Your task to perform on an android device: Show me recent news Image 0: 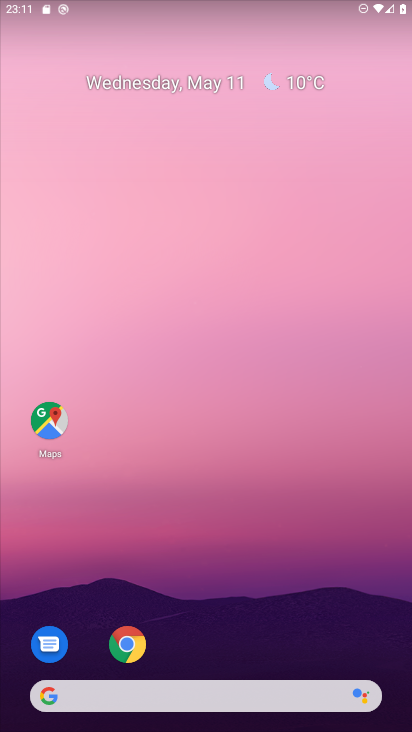
Step 0: click (147, 694)
Your task to perform on an android device: Show me recent news Image 1: 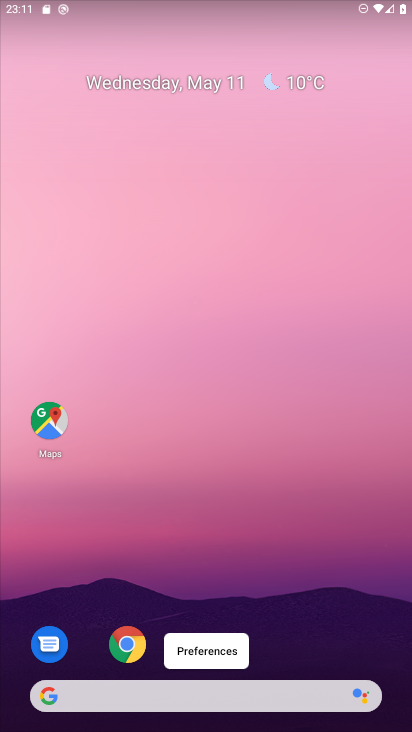
Step 1: click (100, 696)
Your task to perform on an android device: Show me recent news Image 2: 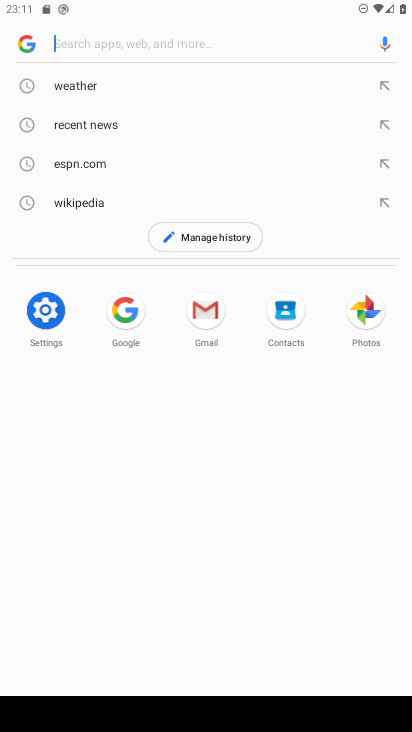
Step 2: click (92, 121)
Your task to perform on an android device: Show me recent news Image 3: 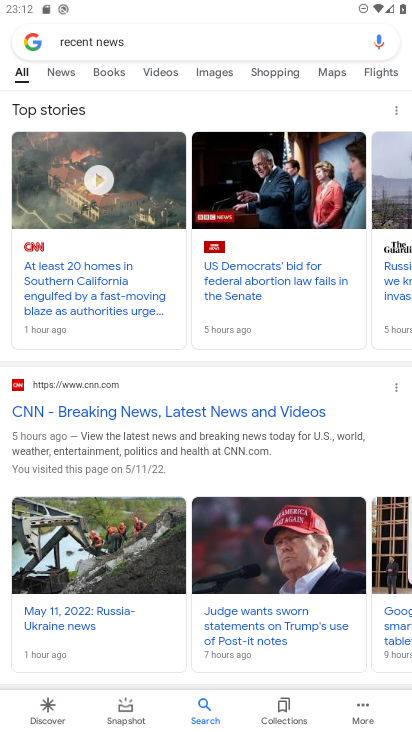
Step 3: click (67, 77)
Your task to perform on an android device: Show me recent news Image 4: 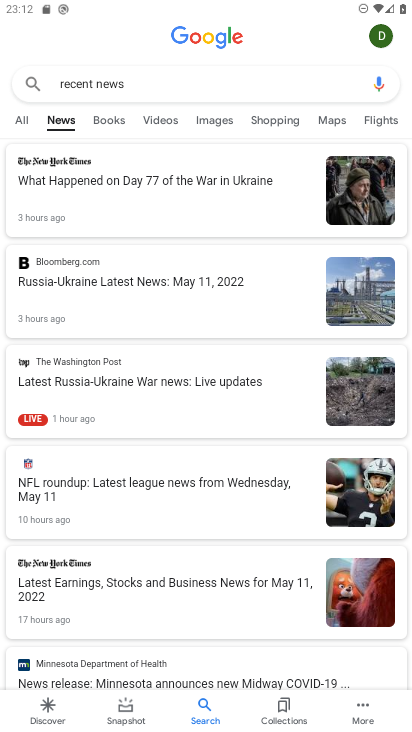
Step 4: click (91, 382)
Your task to perform on an android device: Show me recent news Image 5: 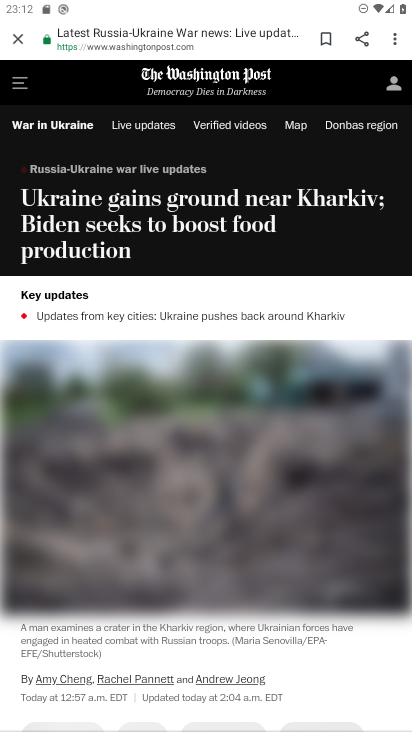
Step 5: task complete